Your task to perform on an android device: open a new tab in the chrome app Image 0: 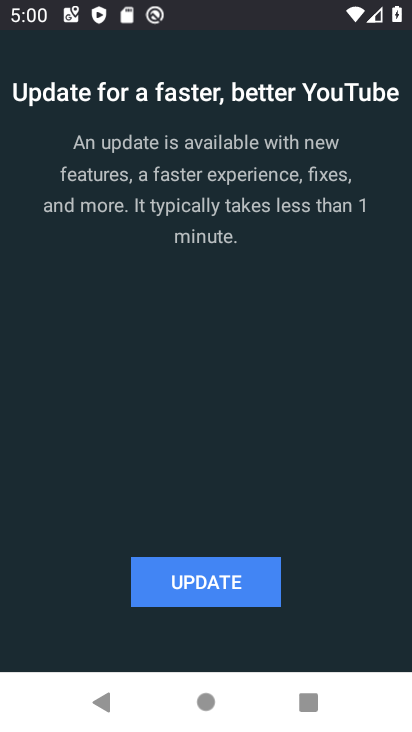
Step 0: press home button
Your task to perform on an android device: open a new tab in the chrome app Image 1: 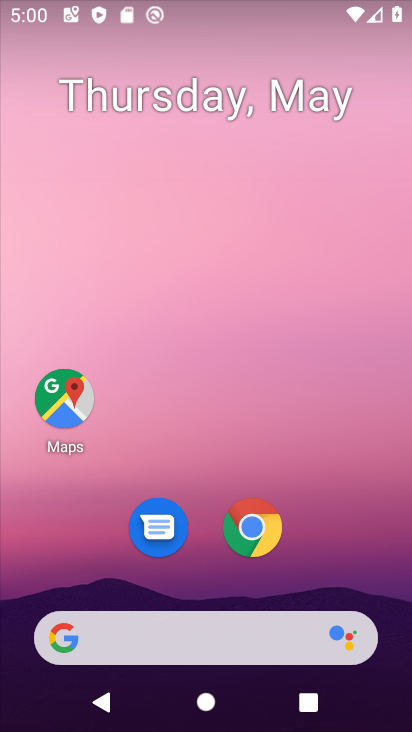
Step 1: drag from (343, 561) to (407, 200)
Your task to perform on an android device: open a new tab in the chrome app Image 2: 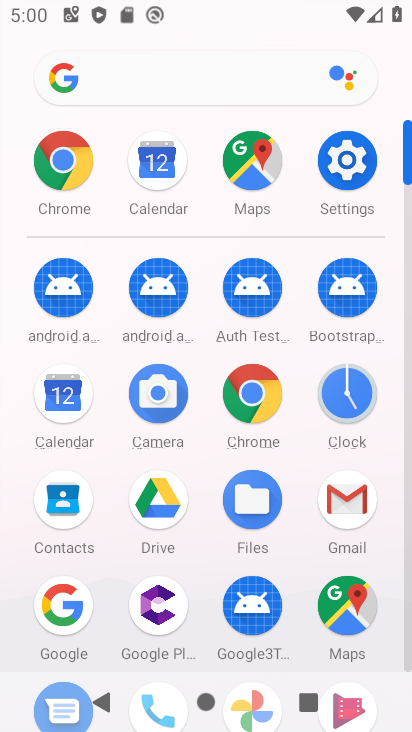
Step 2: click (35, 154)
Your task to perform on an android device: open a new tab in the chrome app Image 3: 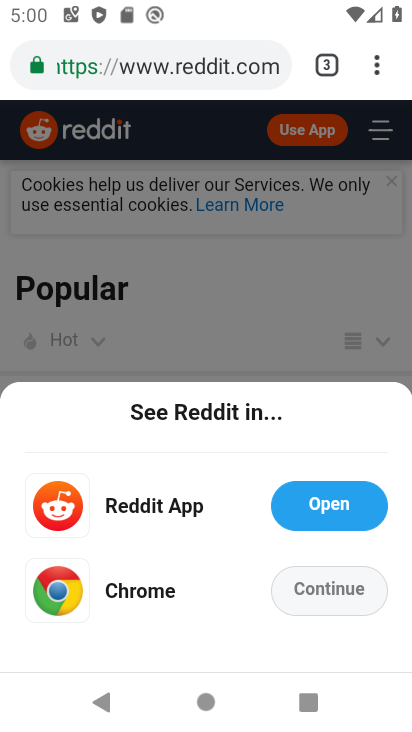
Step 3: task complete